Your task to perform on an android device: Go to ESPN.com Image 0: 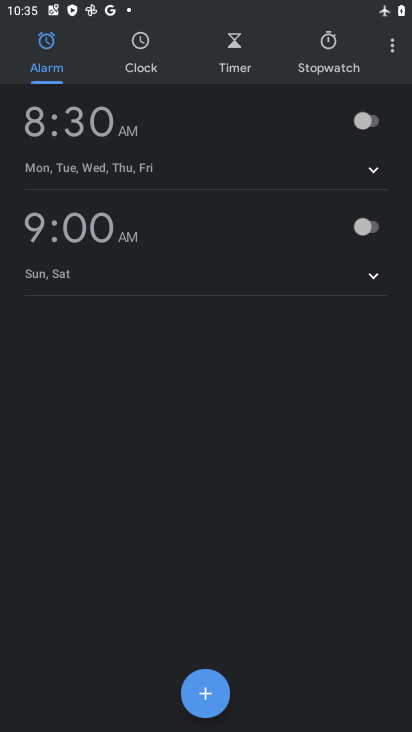
Step 0: press home button
Your task to perform on an android device: Go to ESPN.com Image 1: 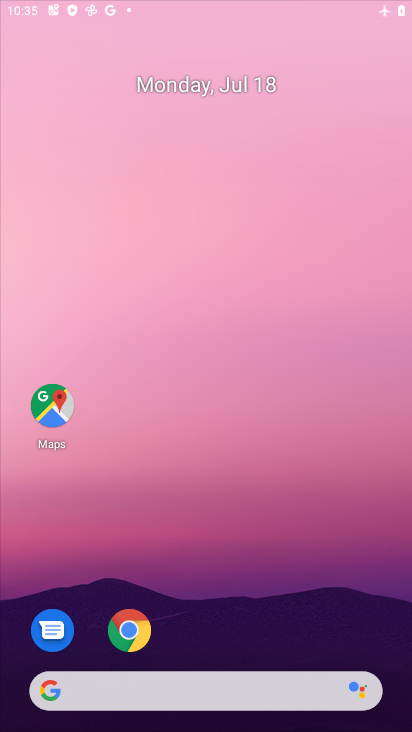
Step 1: drag from (382, 616) to (211, 38)
Your task to perform on an android device: Go to ESPN.com Image 2: 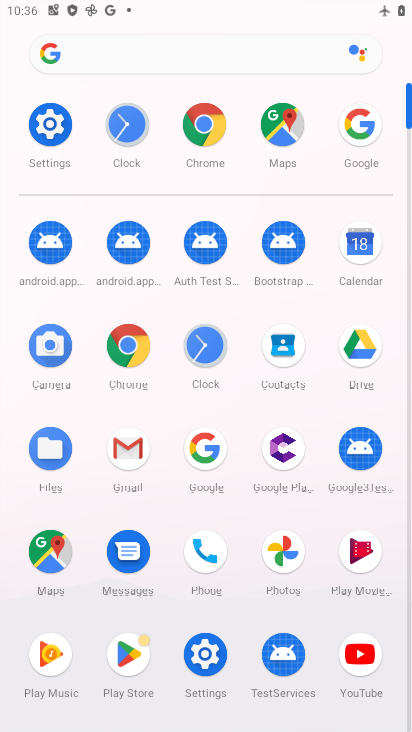
Step 2: click (206, 474)
Your task to perform on an android device: Go to ESPN.com Image 3: 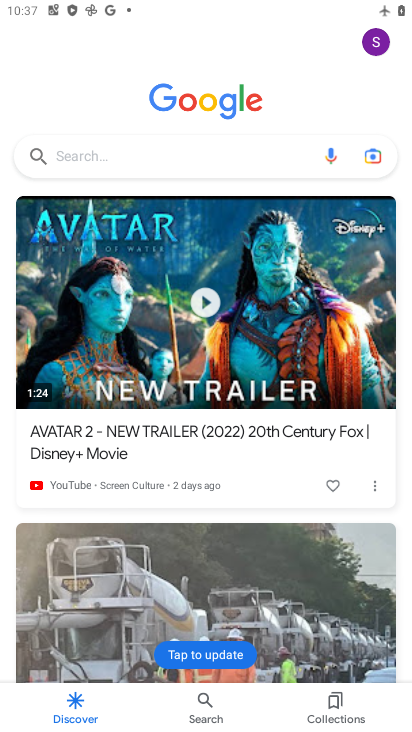
Step 3: click (109, 164)
Your task to perform on an android device: Go to ESPN.com Image 4: 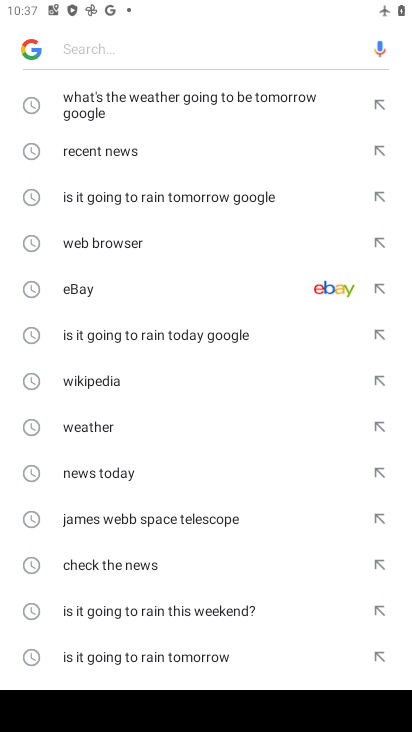
Step 4: type "ESPN.com"
Your task to perform on an android device: Go to ESPN.com Image 5: 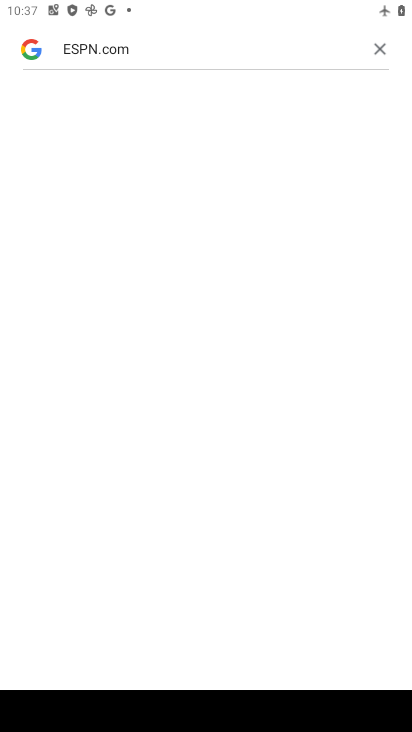
Step 5: task complete